Your task to perform on an android device: Show me popular games on the Play Store Image 0: 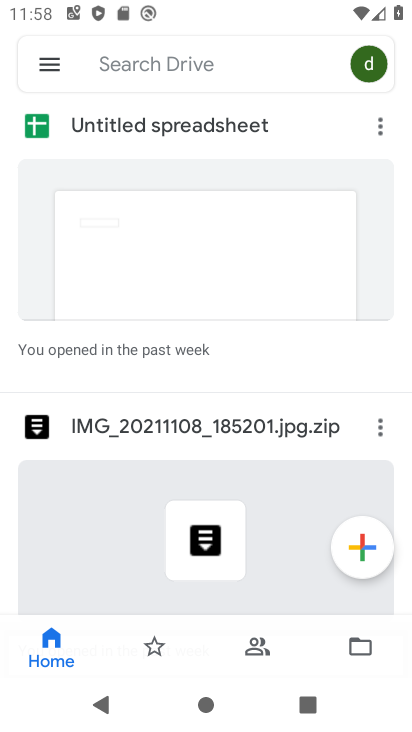
Step 0: press home button
Your task to perform on an android device: Show me popular games on the Play Store Image 1: 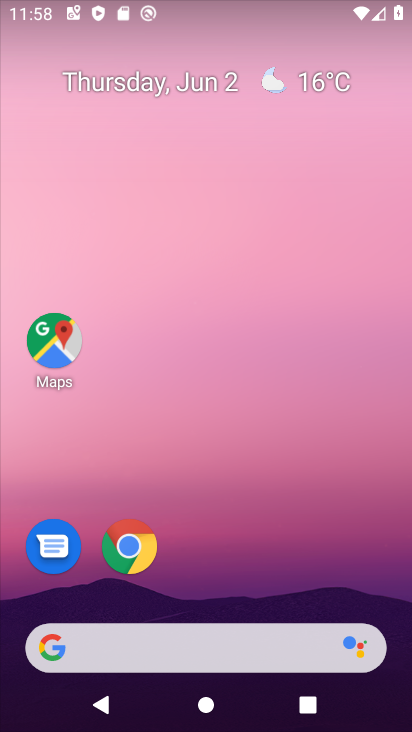
Step 1: drag from (251, 530) to (230, 2)
Your task to perform on an android device: Show me popular games on the Play Store Image 2: 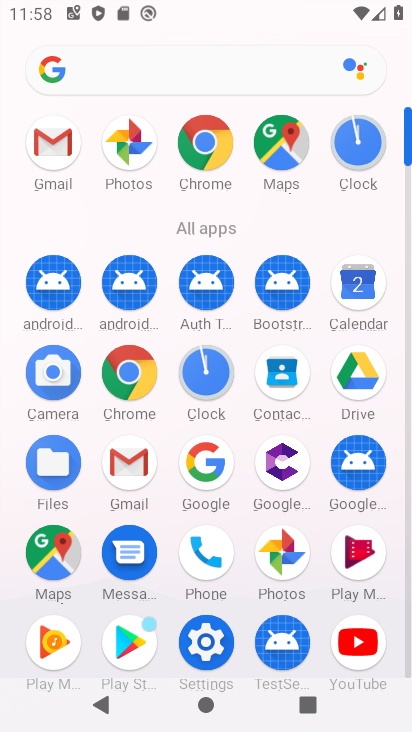
Step 2: click (127, 647)
Your task to perform on an android device: Show me popular games on the Play Store Image 3: 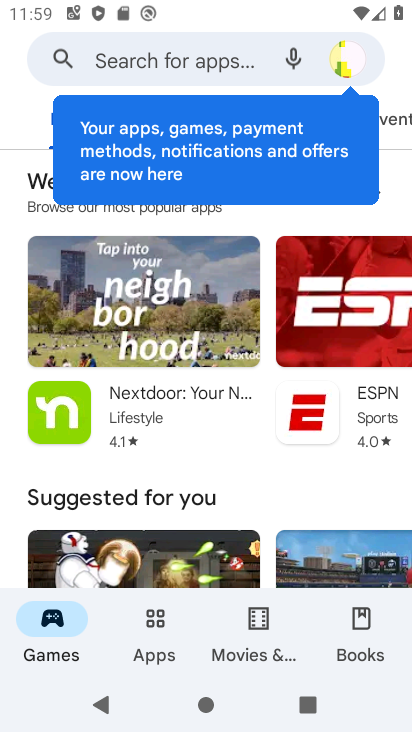
Step 3: task complete